Your task to perform on an android device: Go to settings Image 0: 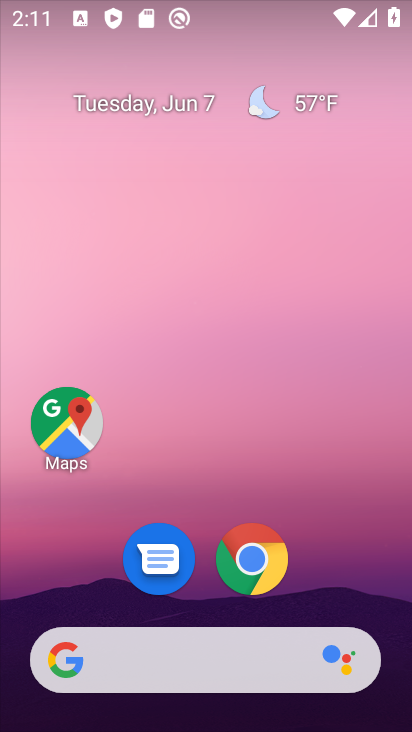
Step 0: drag from (49, 656) to (340, 143)
Your task to perform on an android device: Go to settings Image 1: 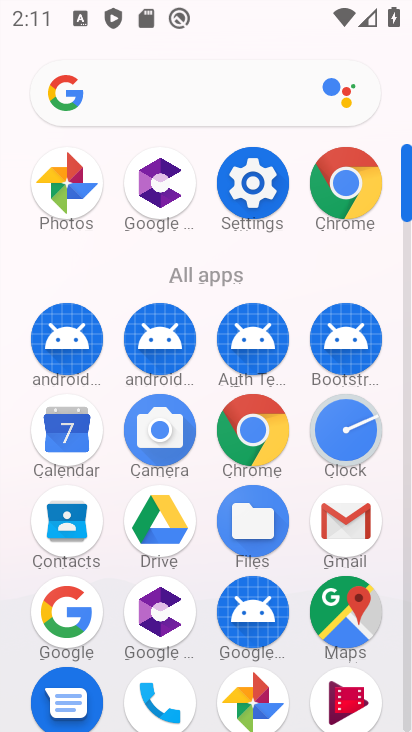
Step 1: click (266, 173)
Your task to perform on an android device: Go to settings Image 2: 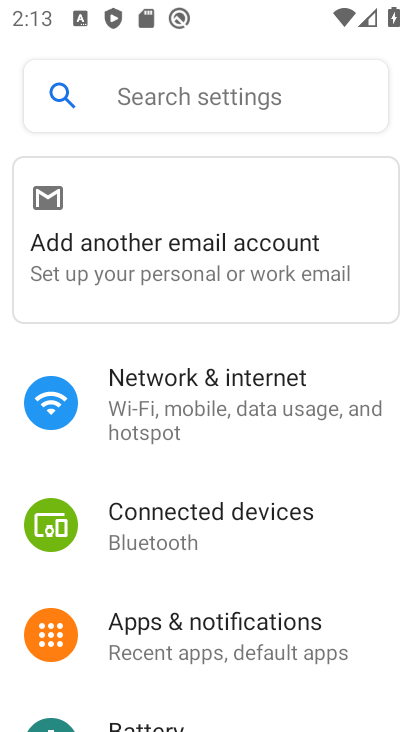
Step 2: task complete